Your task to perform on an android device: see creations saved in the google photos Image 0: 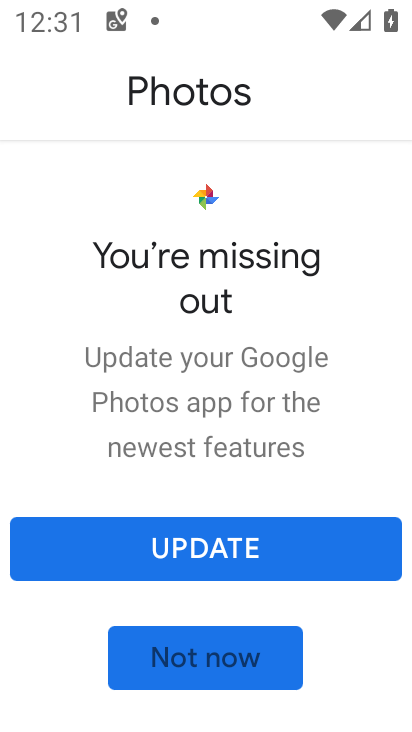
Step 0: click (204, 555)
Your task to perform on an android device: see creations saved in the google photos Image 1: 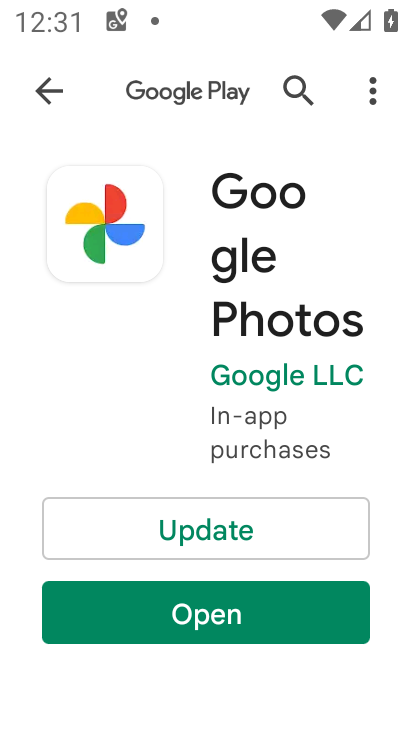
Step 1: click (198, 535)
Your task to perform on an android device: see creations saved in the google photos Image 2: 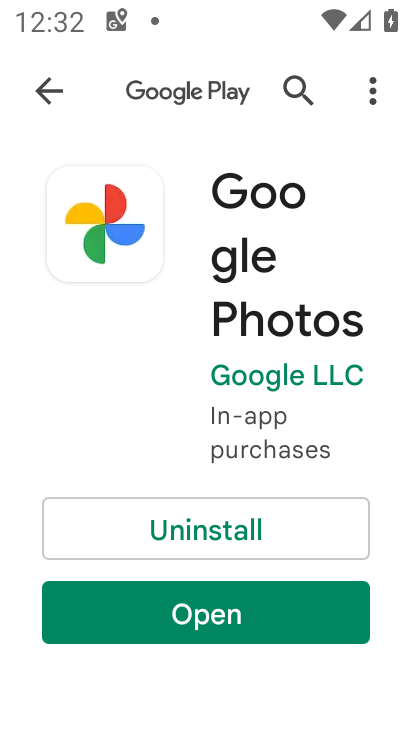
Step 2: click (202, 623)
Your task to perform on an android device: see creations saved in the google photos Image 3: 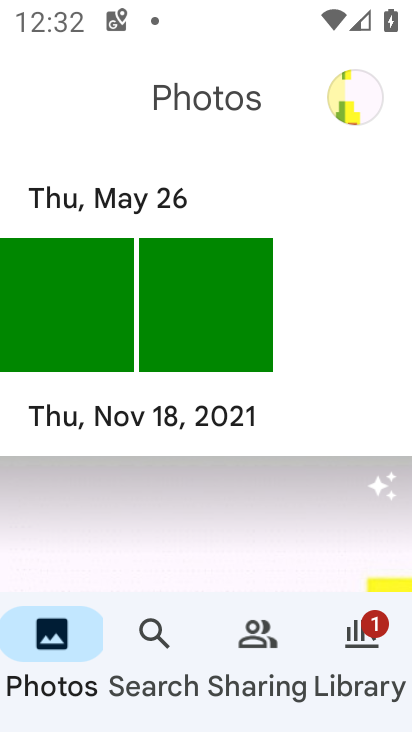
Step 3: task complete